Your task to perform on an android device: Open the phone app and click the voicemail tab. Image 0: 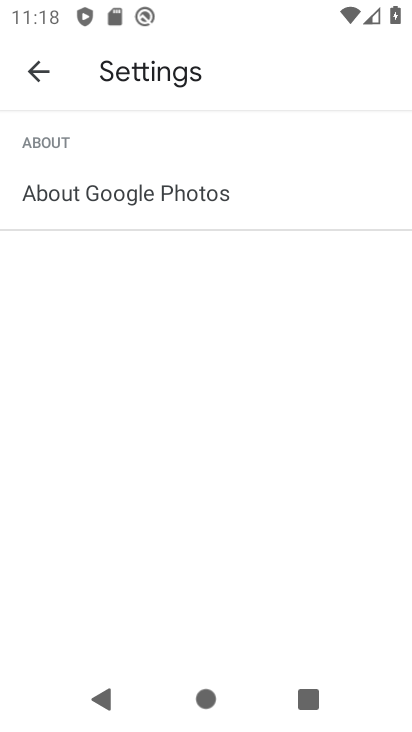
Step 0: press home button
Your task to perform on an android device: Open the phone app and click the voicemail tab. Image 1: 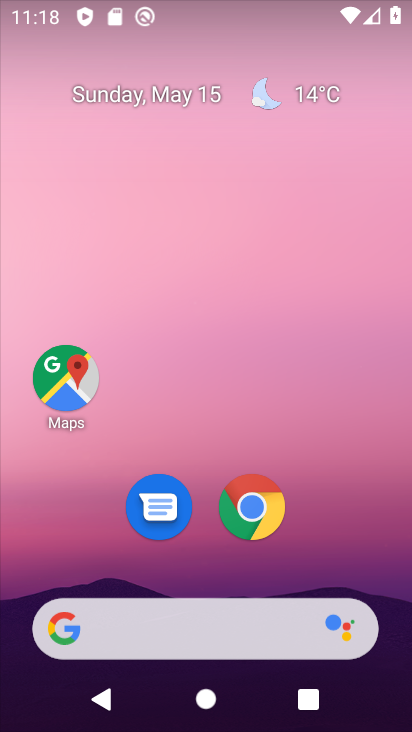
Step 1: drag from (216, 245) to (287, 38)
Your task to perform on an android device: Open the phone app and click the voicemail tab. Image 2: 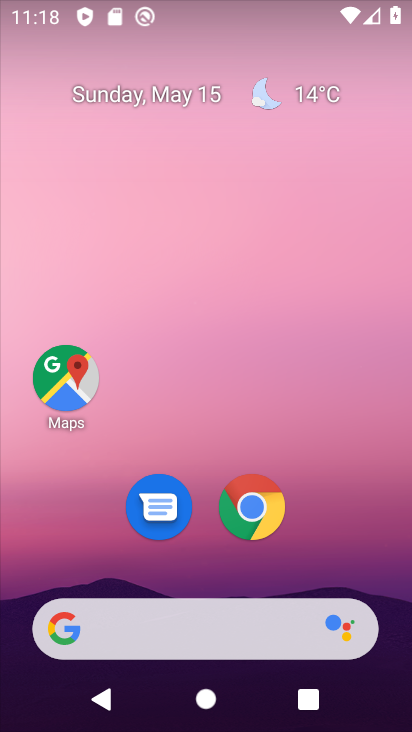
Step 2: drag from (192, 602) to (203, 2)
Your task to perform on an android device: Open the phone app and click the voicemail tab. Image 3: 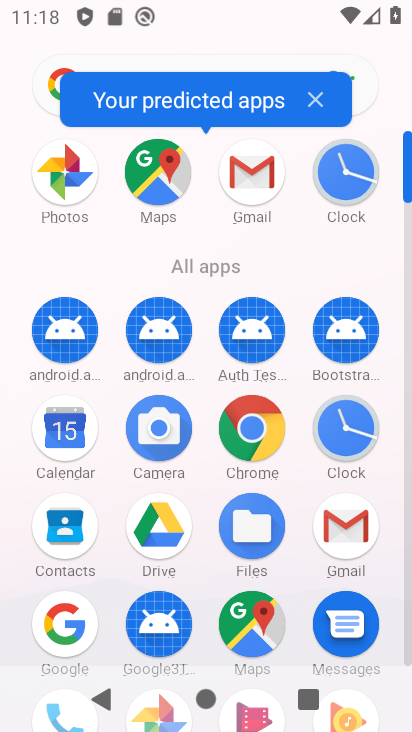
Step 3: drag from (190, 586) to (277, 325)
Your task to perform on an android device: Open the phone app and click the voicemail tab. Image 4: 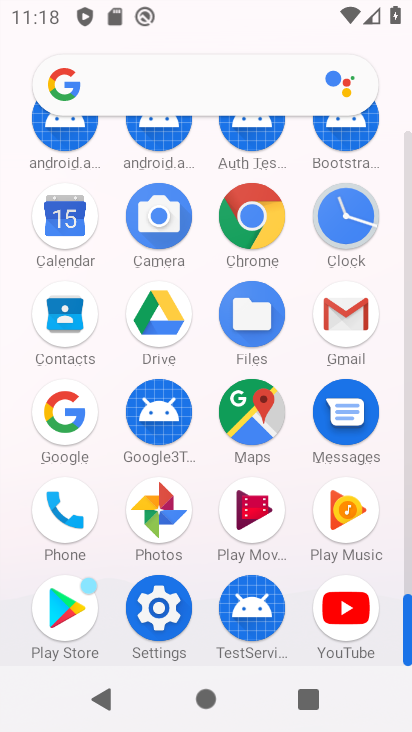
Step 4: click (47, 528)
Your task to perform on an android device: Open the phone app and click the voicemail tab. Image 5: 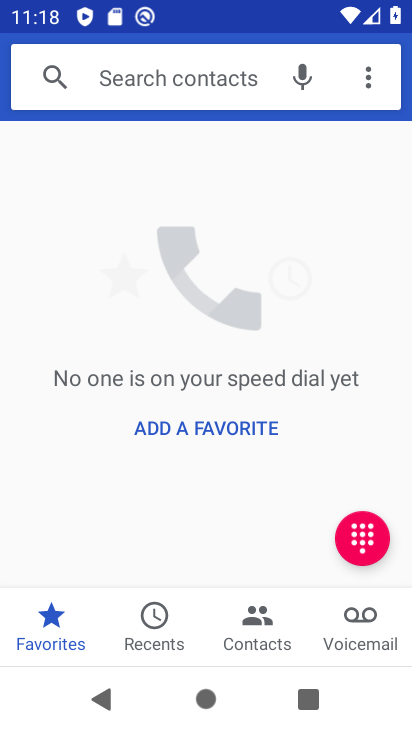
Step 5: click (341, 628)
Your task to perform on an android device: Open the phone app and click the voicemail tab. Image 6: 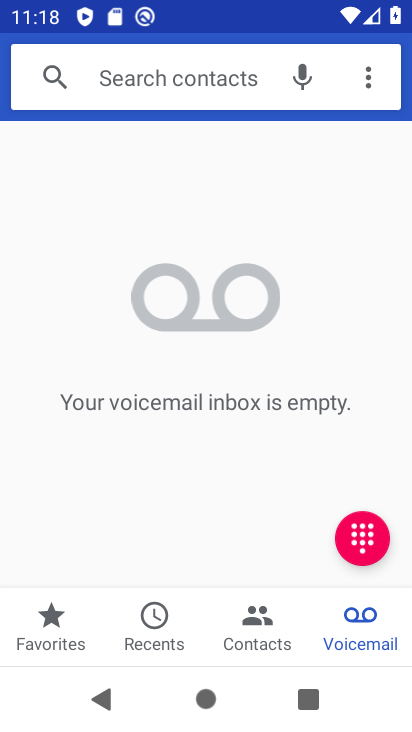
Step 6: task complete